Your task to perform on an android device: Go to ESPN.com Image 0: 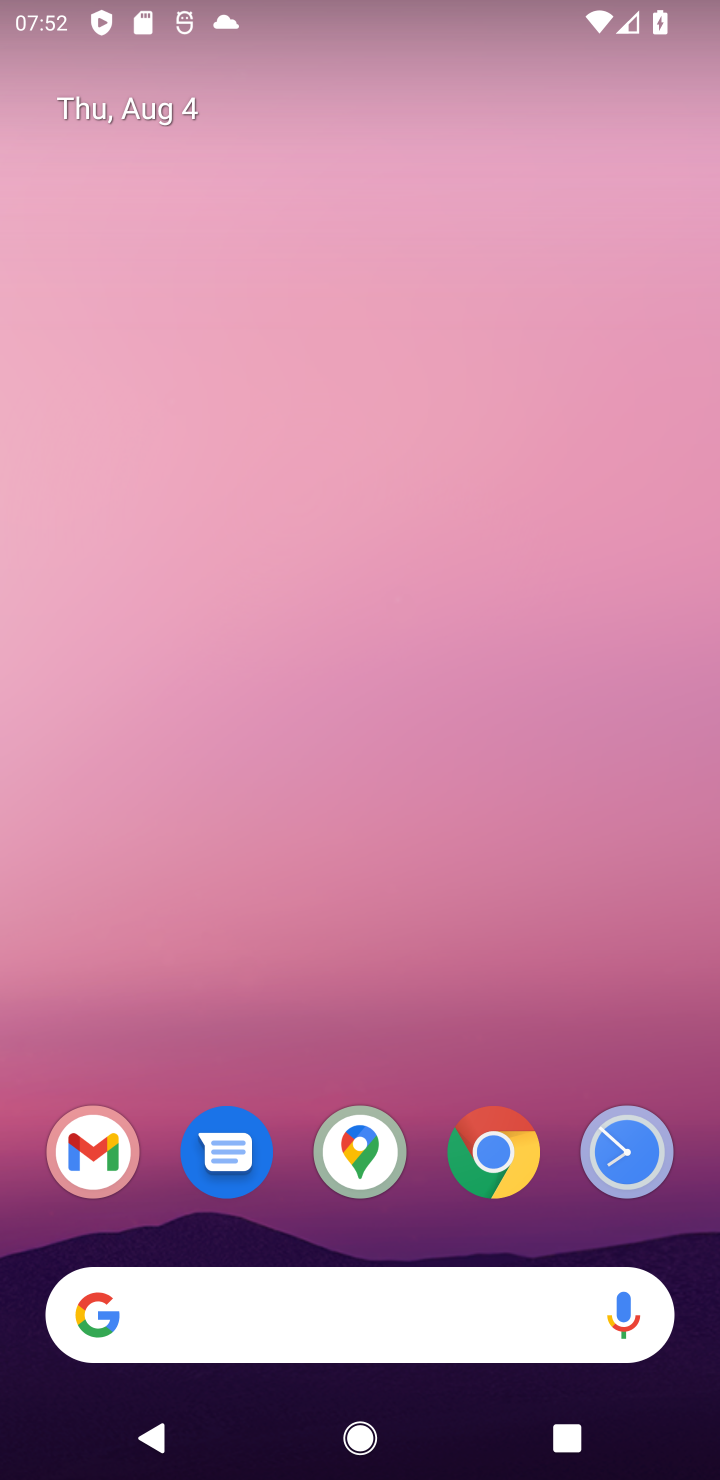
Step 0: click (281, 1294)
Your task to perform on an android device: Go to ESPN.com Image 1: 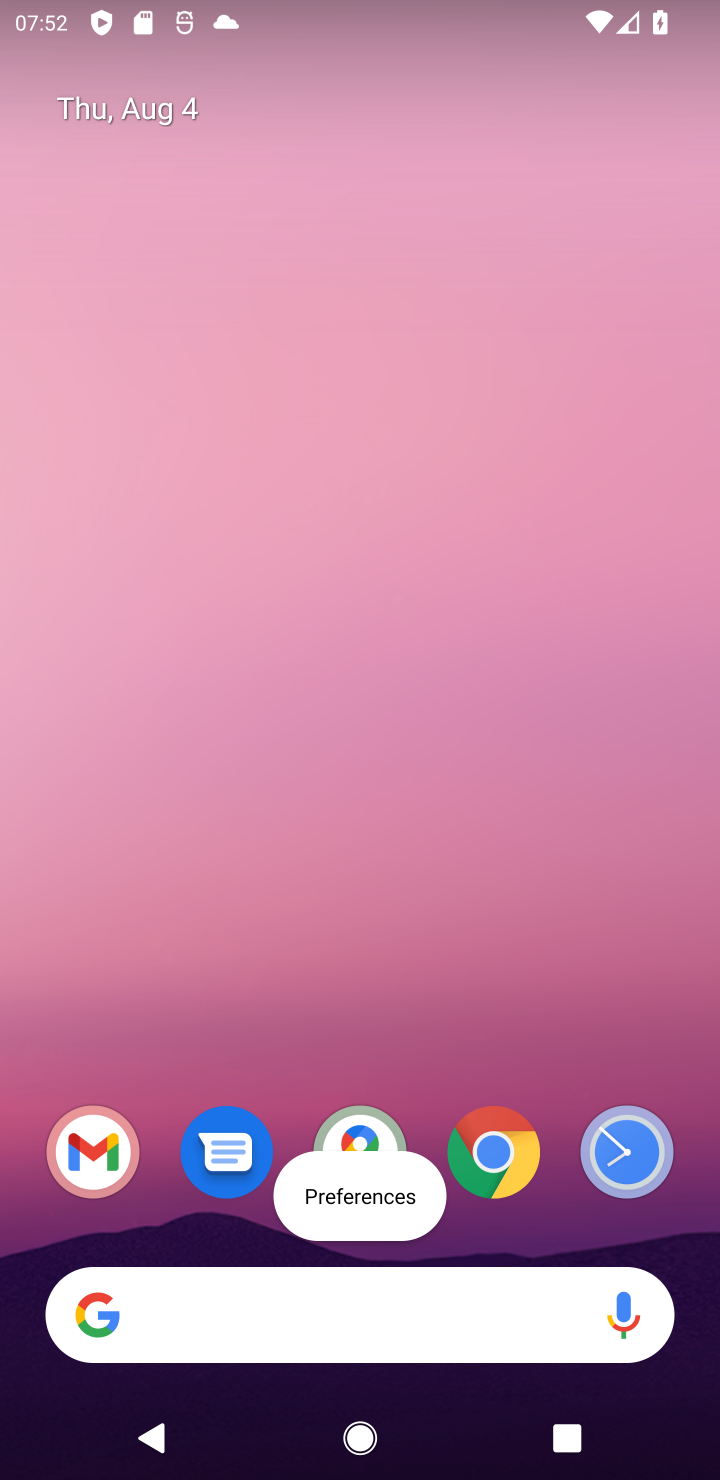
Step 1: click (295, 1324)
Your task to perform on an android device: Go to ESPN.com Image 2: 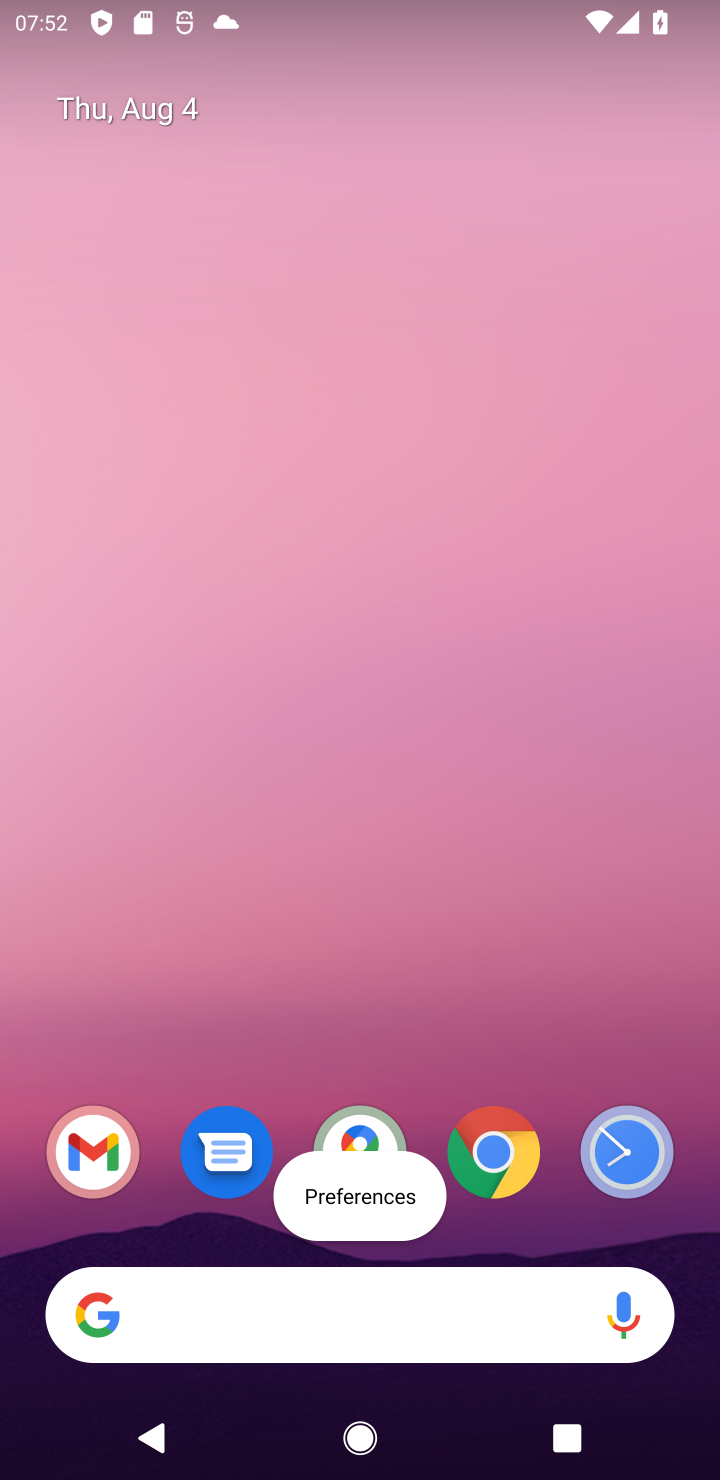
Step 2: click (295, 1322)
Your task to perform on an android device: Go to ESPN.com Image 3: 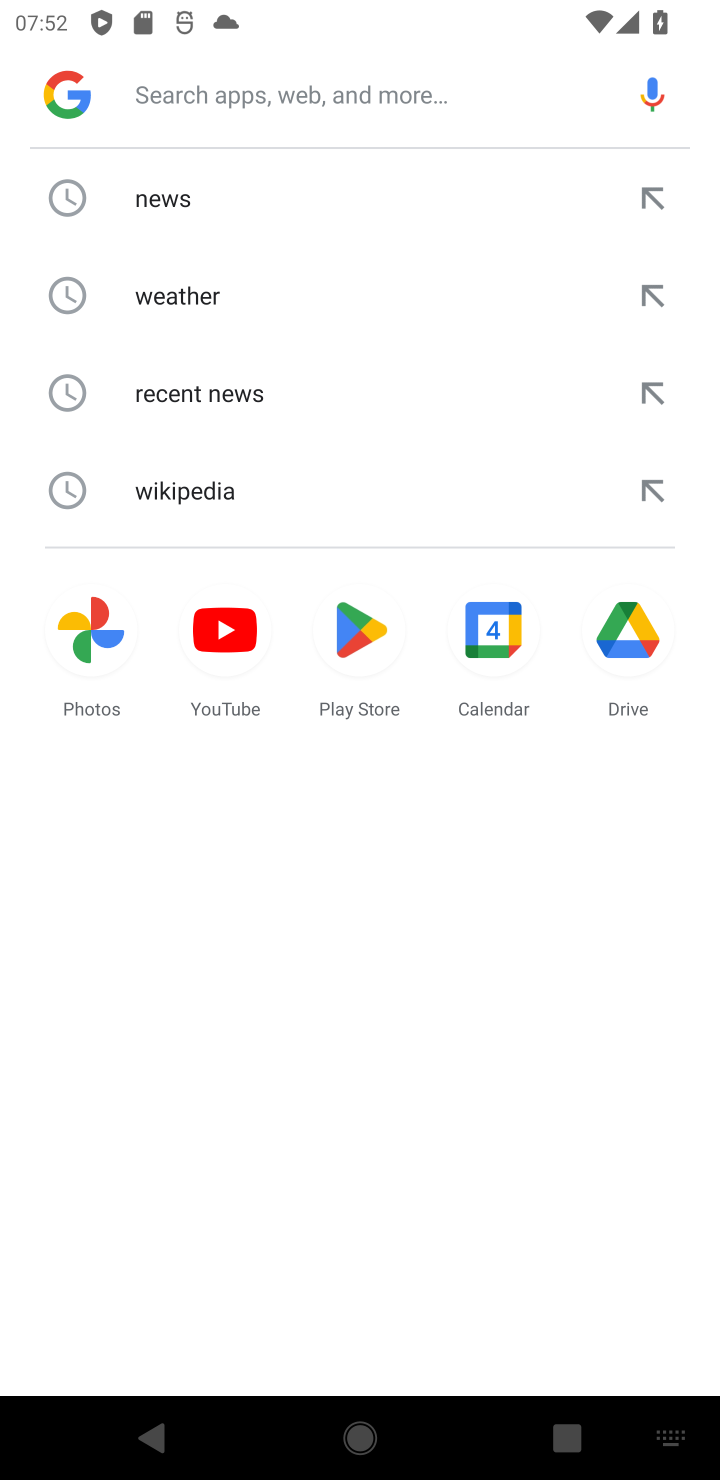
Step 3: type "ESPN.com"
Your task to perform on an android device: Go to ESPN.com Image 4: 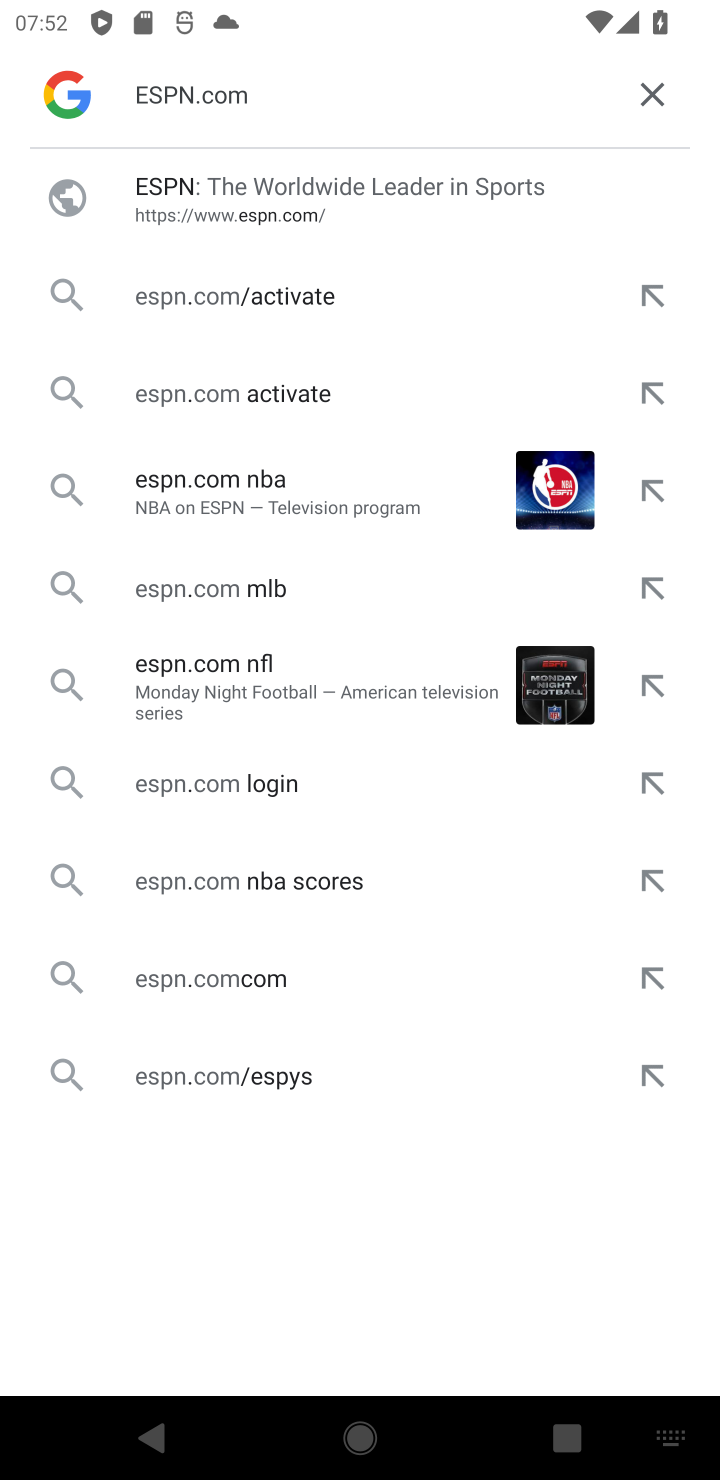
Step 4: click (237, 179)
Your task to perform on an android device: Go to ESPN.com Image 5: 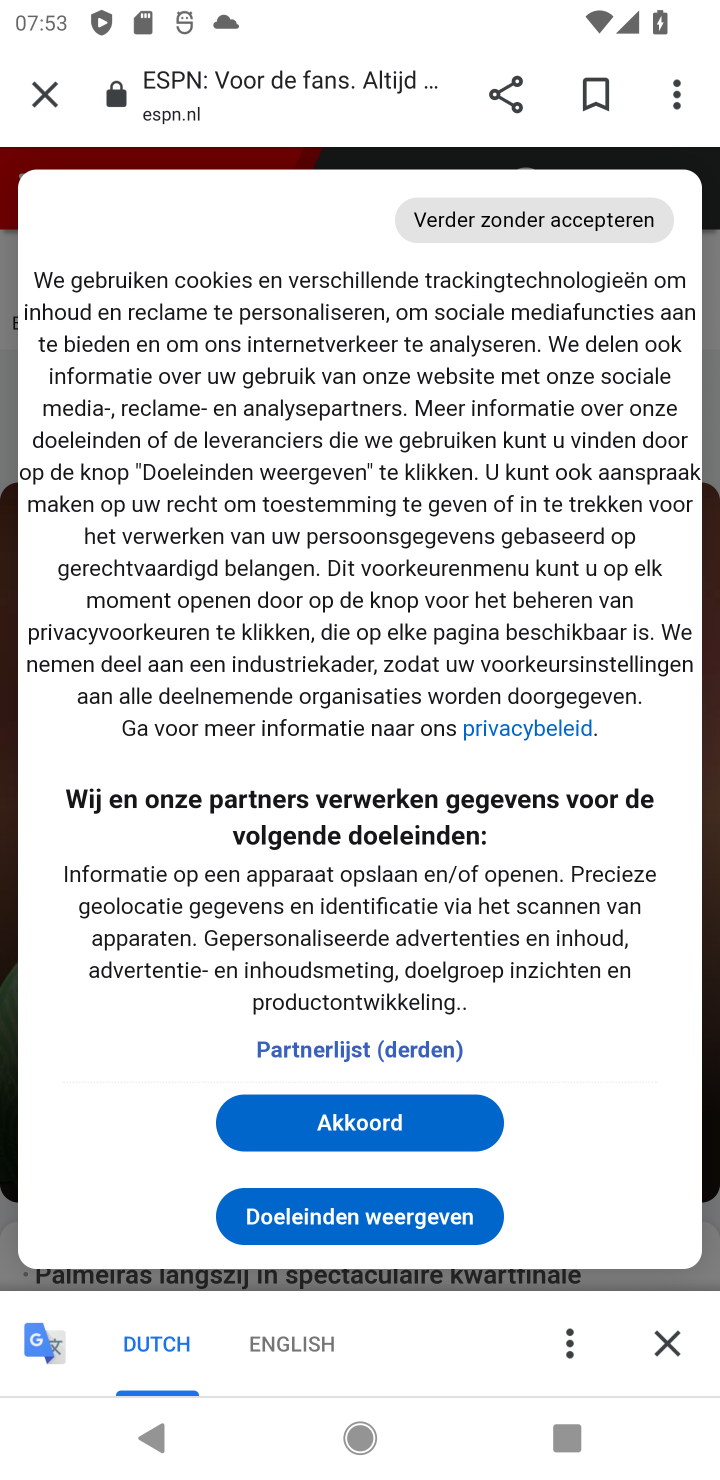
Step 5: click (432, 1114)
Your task to perform on an android device: Go to ESPN.com Image 6: 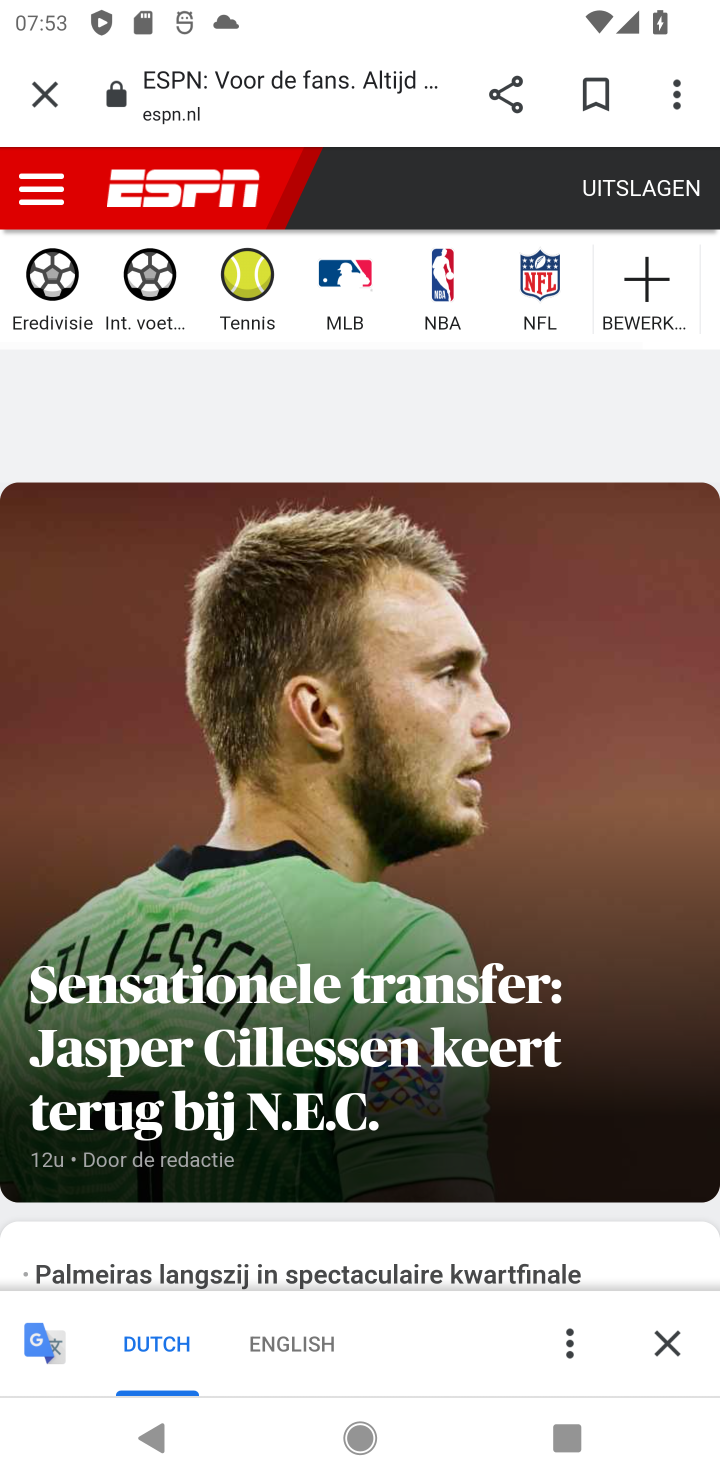
Step 6: task complete